Your task to perform on an android device: Show me recent news Image 0: 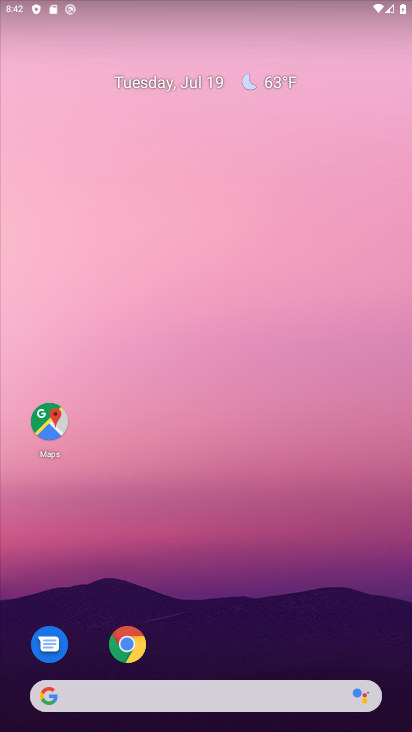
Step 0: drag from (228, 713) to (190, 258)
Your task to perform on an android device: Show me recent news Image 1: 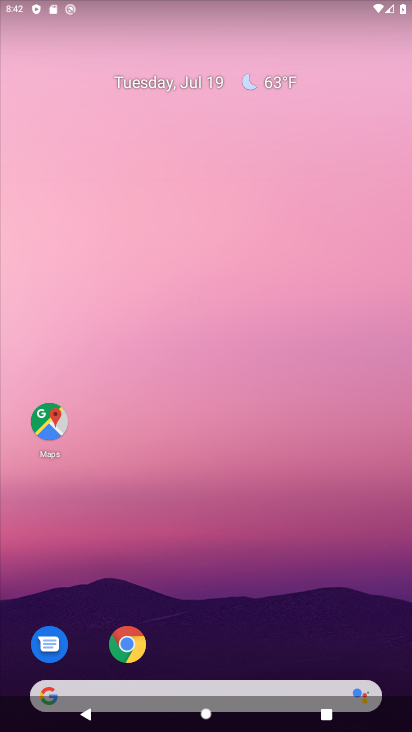
Step 1: drag from (210, 496) to (202, 176)
Your task to perform on an android device: Show me recent news Image 2: 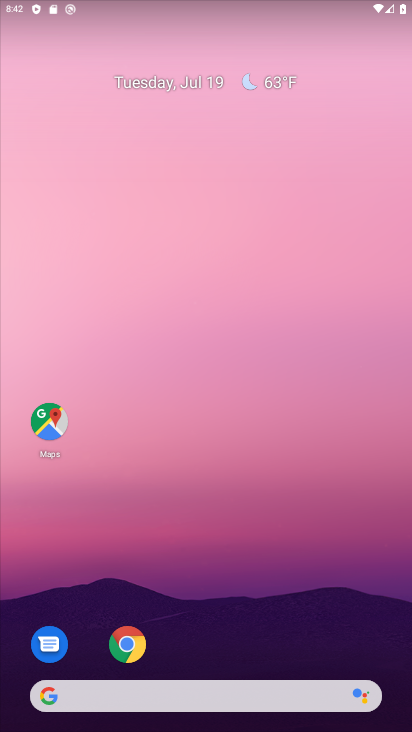
Step 2: drag from (254, 713) to (214, 305)
Your task to perform on an android device: Show me recent news Image 3: 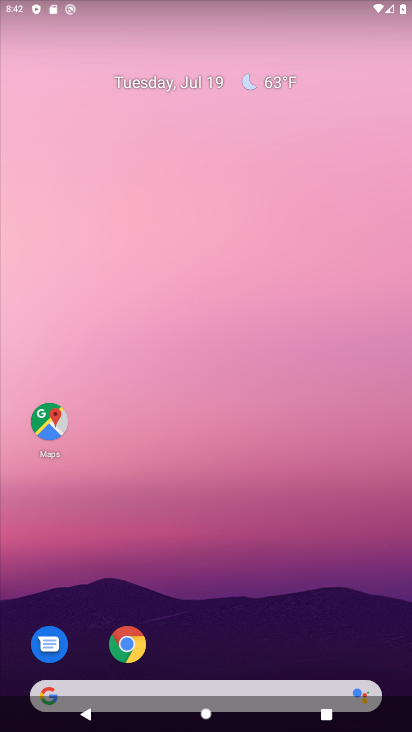
Step 3: drag from (188, 612) to (119, 165)
Your task to perform on an android device: Show me recent news Image 4: 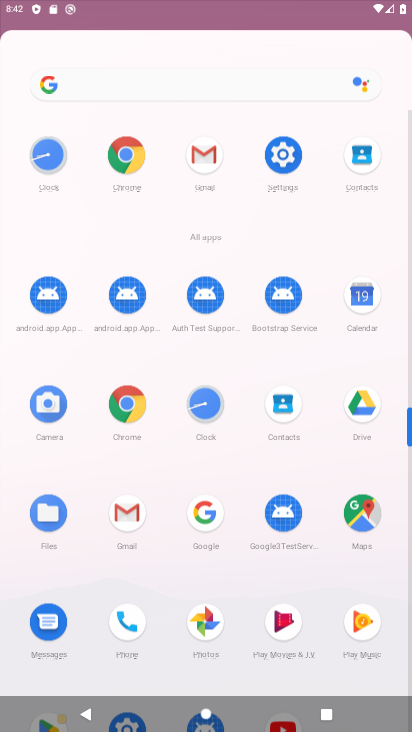
Step 4: drag from (127, 320) to (127, 136)
Your task to perform on an android device: Show me recent news Image 5: 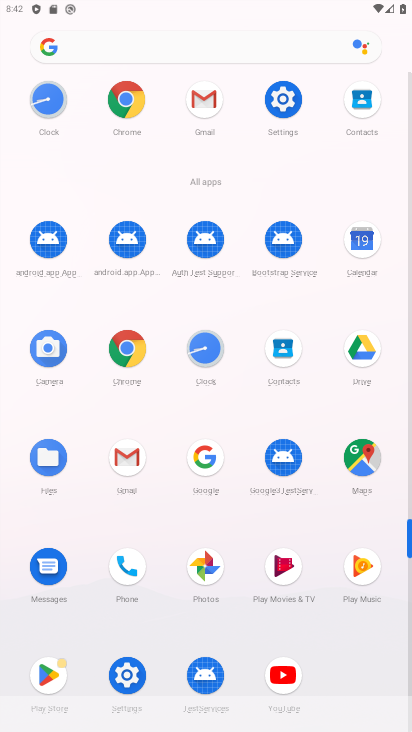
Step 5: click (115, 89)
Your task to perform on an android device: Show me recent news Image 6: 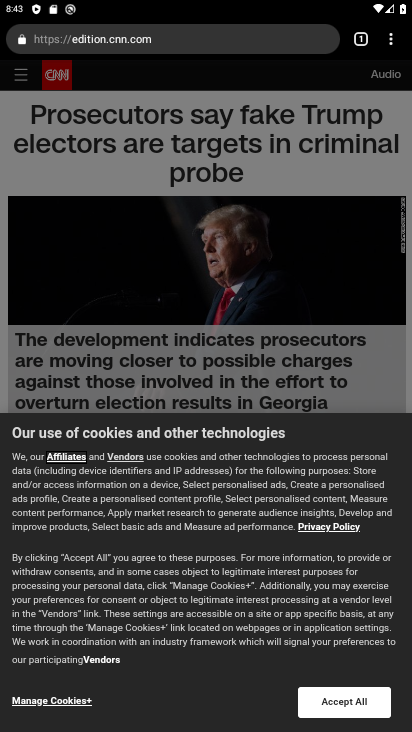
Step 6: task complete